Your task to perform on an android device: turn off javascript in the chrome app Image 0: 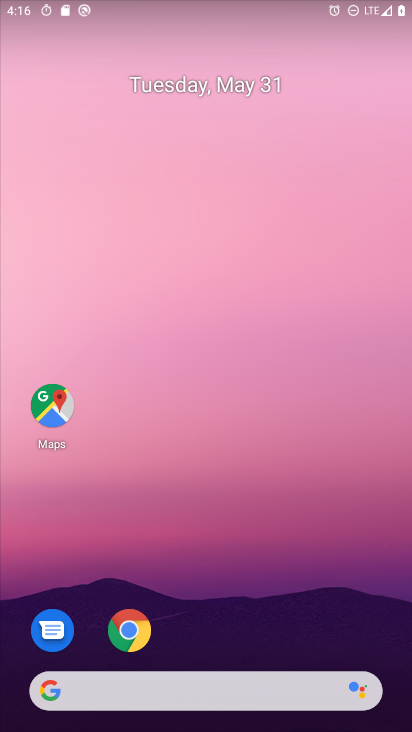
Step 0: drag from (323, 677) to (361, 101)
Your task to perform on an android device: turn off javascript in the chrome app Image 1: 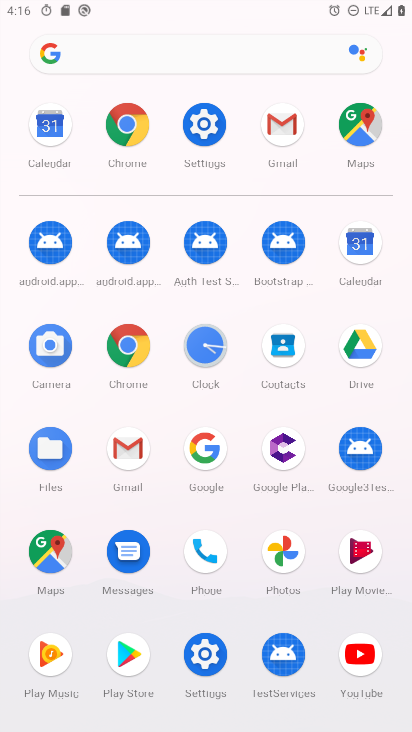
Step 1: click (140, 350)
Your task to perform on an android device: turn off javascript in the chrome app Image 2: 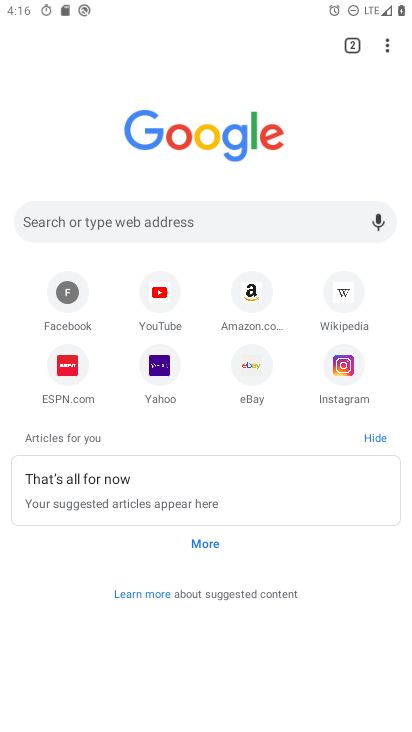
Step 2: drag from (387, 35) to (249, 377)
Your task to perform on an android device: turn off javascript in the chrome app Image 3: 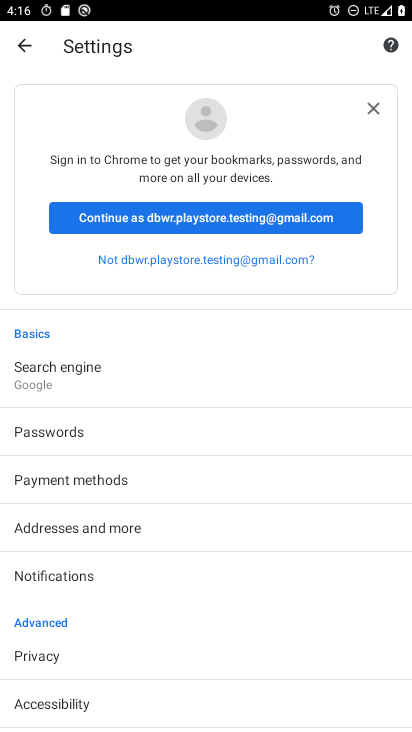
Step 3: drag from (95, 644) to (95, 240)
Your task to perform on an android device: turn off javascript in the chrome app Image 4: 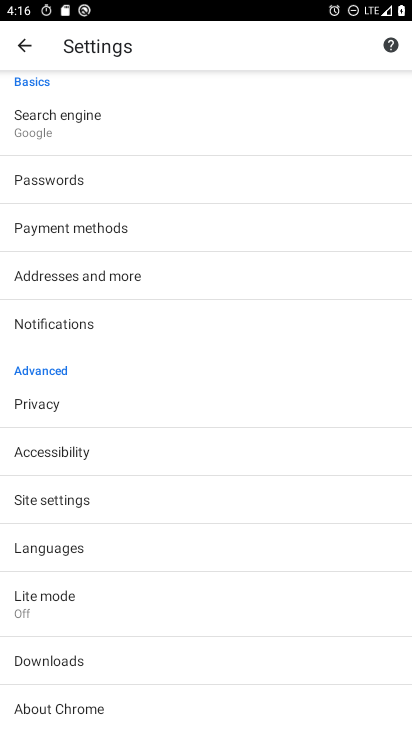
Step 4: click (69, 490)
Your task to perform on an android device: turn off javascript in the chrome app Image 5: 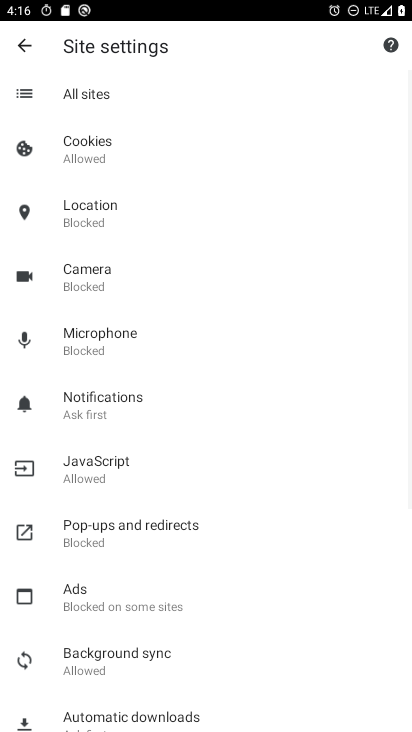
Step 5: click (155, 455)
Your task to perform on an android device: turn off javascript in the chrome app Image 6: 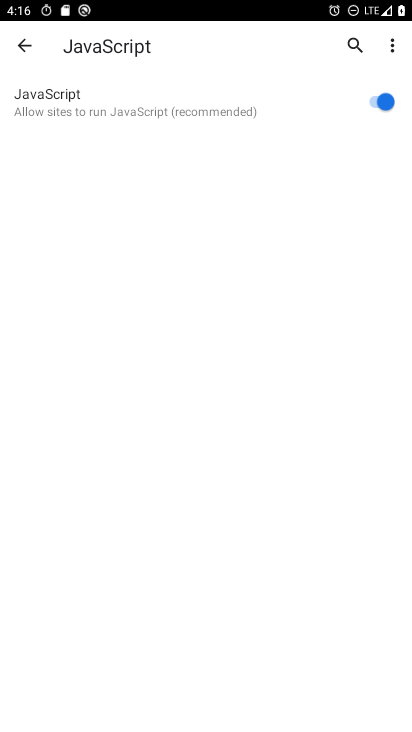
Step 6: click (373, 94)
Your task to perform on an android device: turn off javascript in the chrome app Image 7: 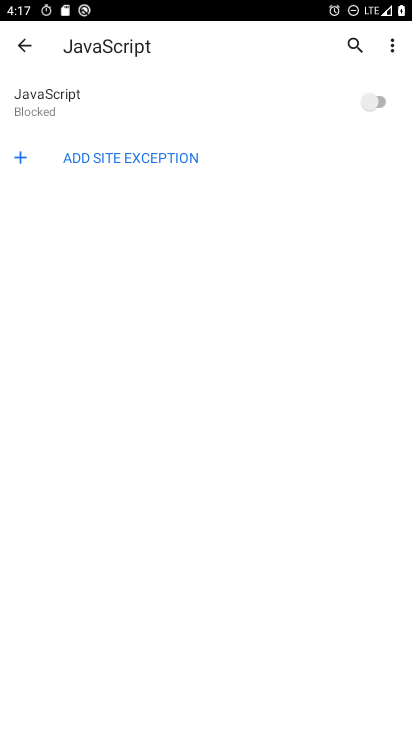
Step 7: task complete